Your task to perform on an android device: Go to display settings Image 0: 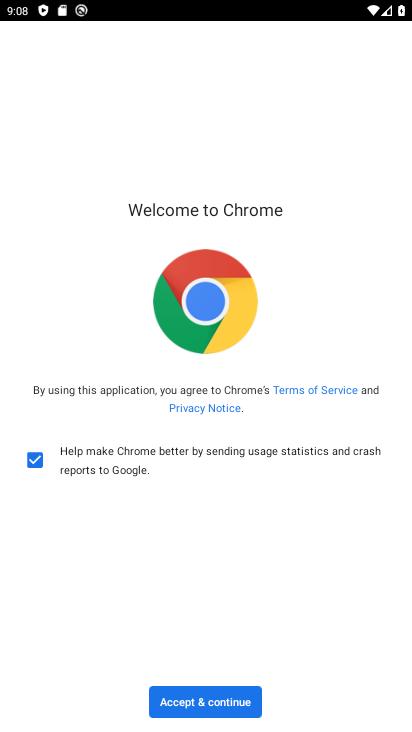
Step 0: press home button
Your task to perform on an android device: Go to display settings Image 1: 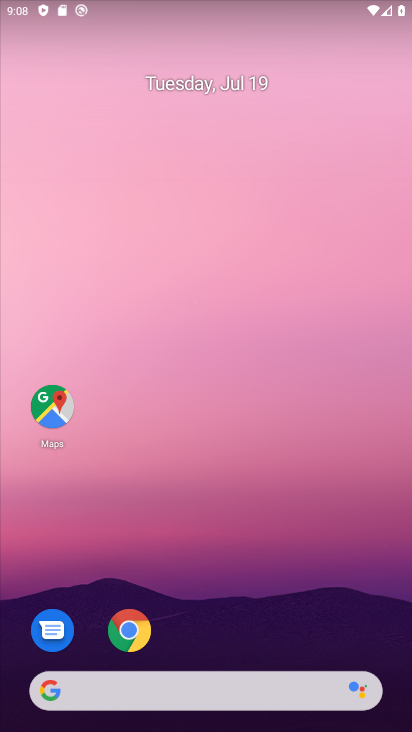
Step 1: drag from (198, 670) to (198, 200)
Your task to perform on an android device: Go to display settings Image 2: 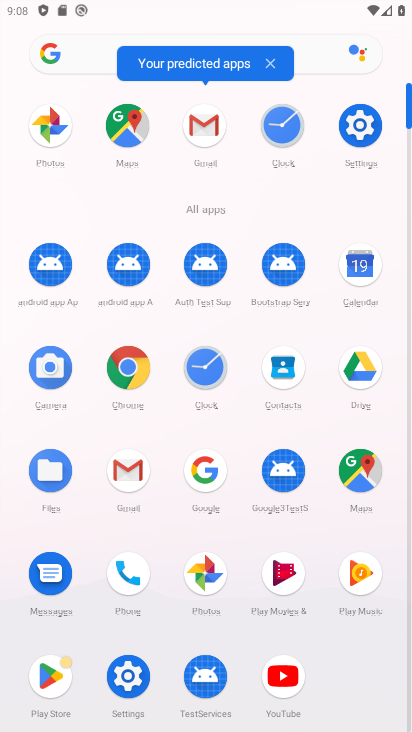
Step 2: click (351, 129)
Your task to perform on an android device: Go to display settings Image 3: 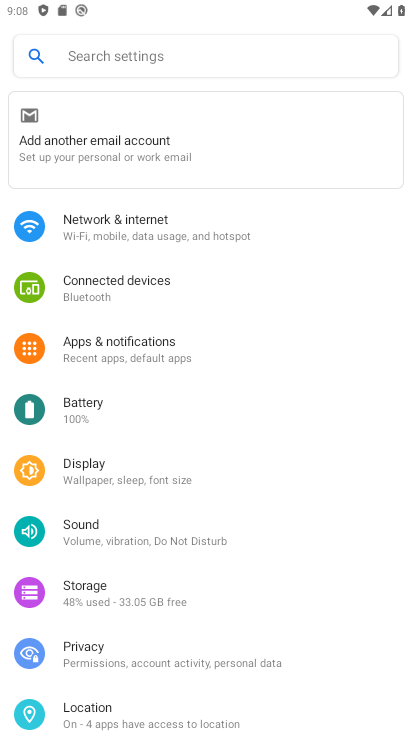
Step 3: click (80, 466)
Your task to perform on an android device: Go to display settings Image 4: 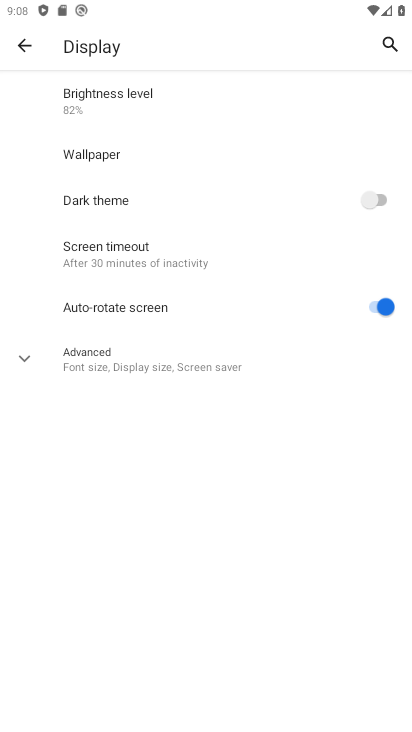
Step 4: click (67, 354)
Your task to perform on an android device: Go to display settings Image 5: 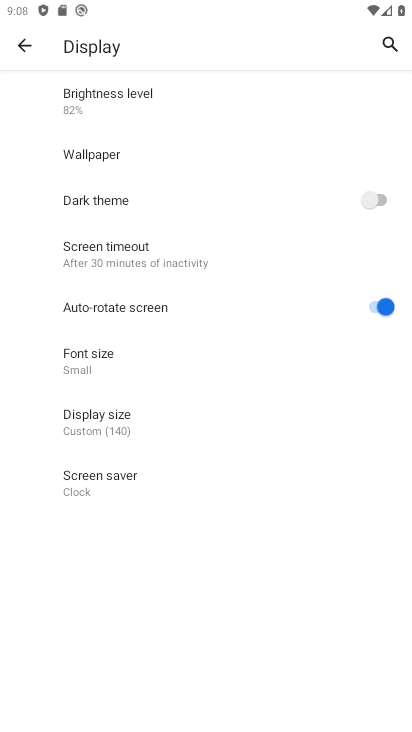
Step 5: task complete